Your task to perform on an android device: turn off wifi Image 0: 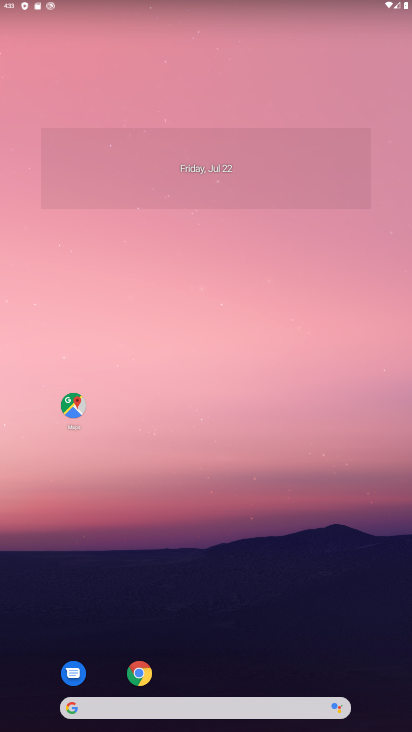
Step 0: press home button
Your task to perform on an android device: turn off wifi Image 1: 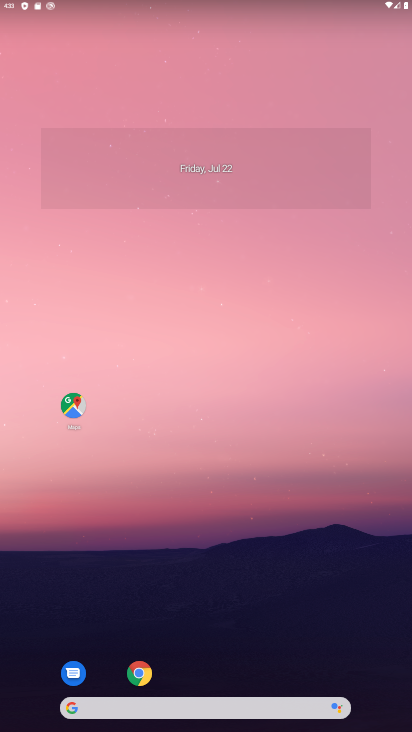
Step 1: drag from (247, 482) to (278, 123)
Your task to perform on an android device: turn off wifi Image 2: 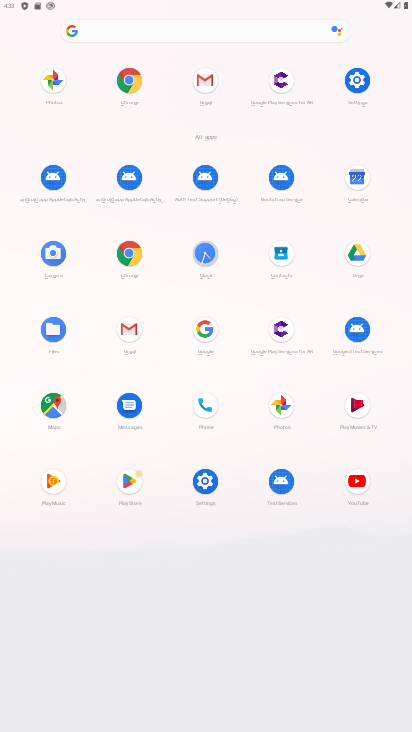
Step 2: click (355, 74)
Your task to perform on an android device: turn off wifi Image 3: 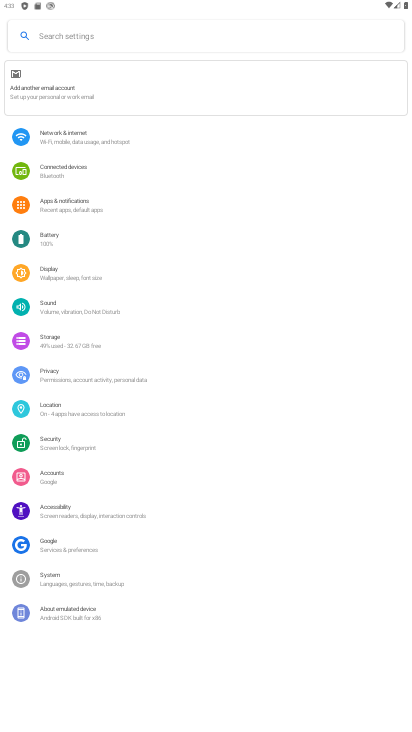
Step 3: click (77, 131)
Your task to perform on an android device: turn off wifi Image 4: 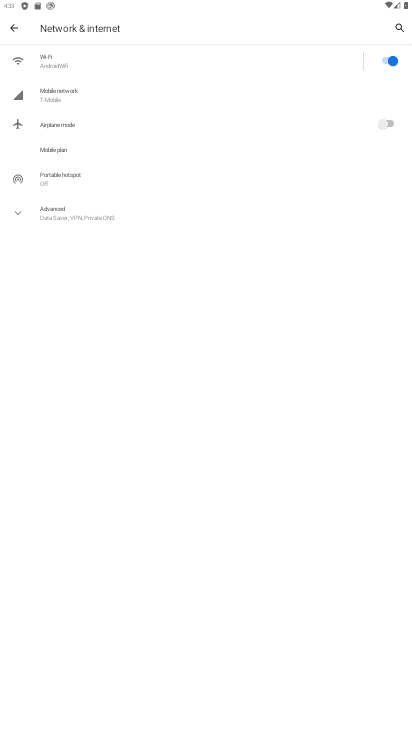
Step 4: click (384, 62)
Your task to perform on an android device: turn off wifi Image 5: 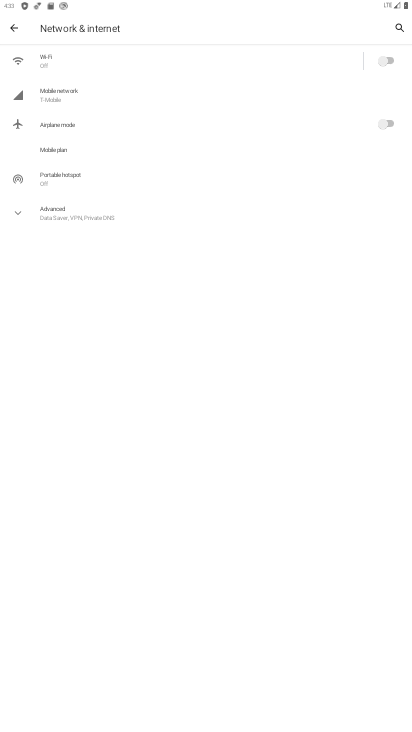
Step 5: task complete